Your task to perform on an android device: Add "logitech g pro" to the cart on costco.com Image 0: 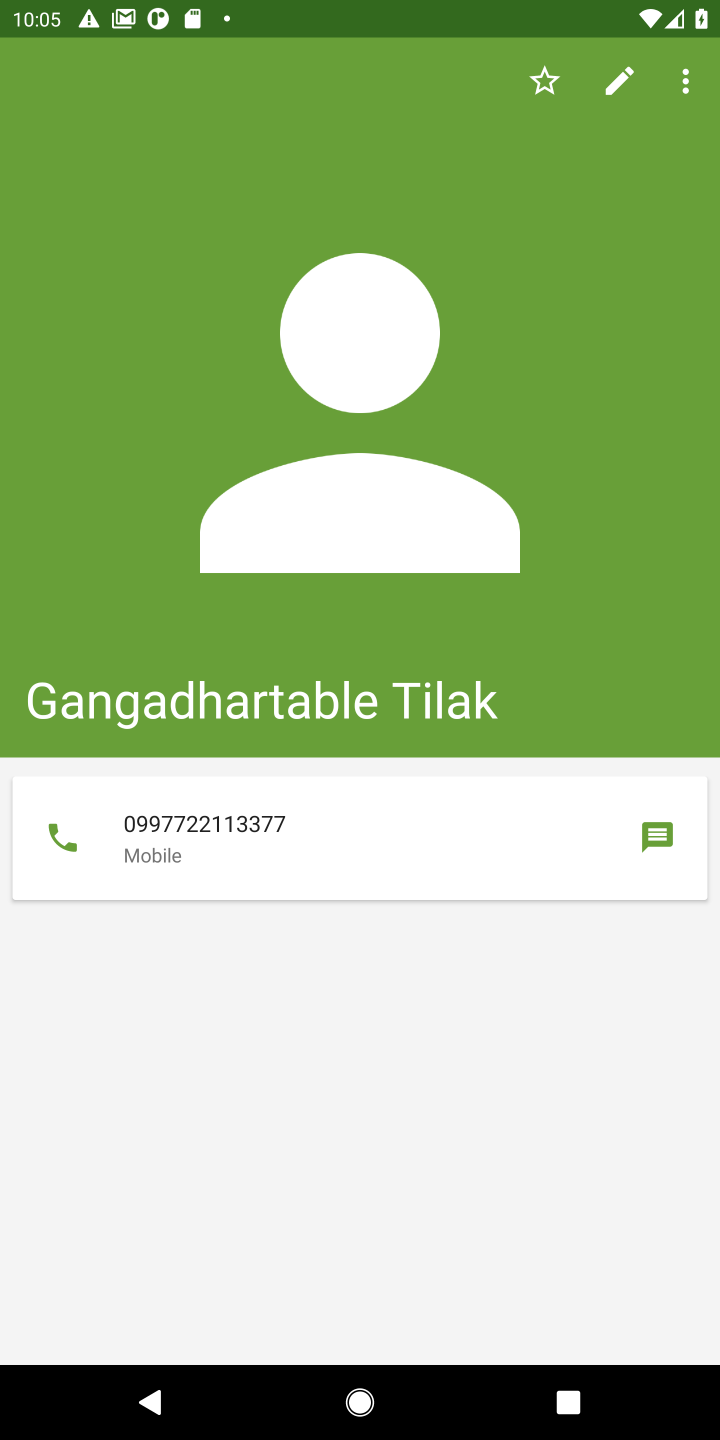
Step 0: press home button
Your task to perform on an android device: Add "logitech g pro" to the cart on costco.com Image 1: 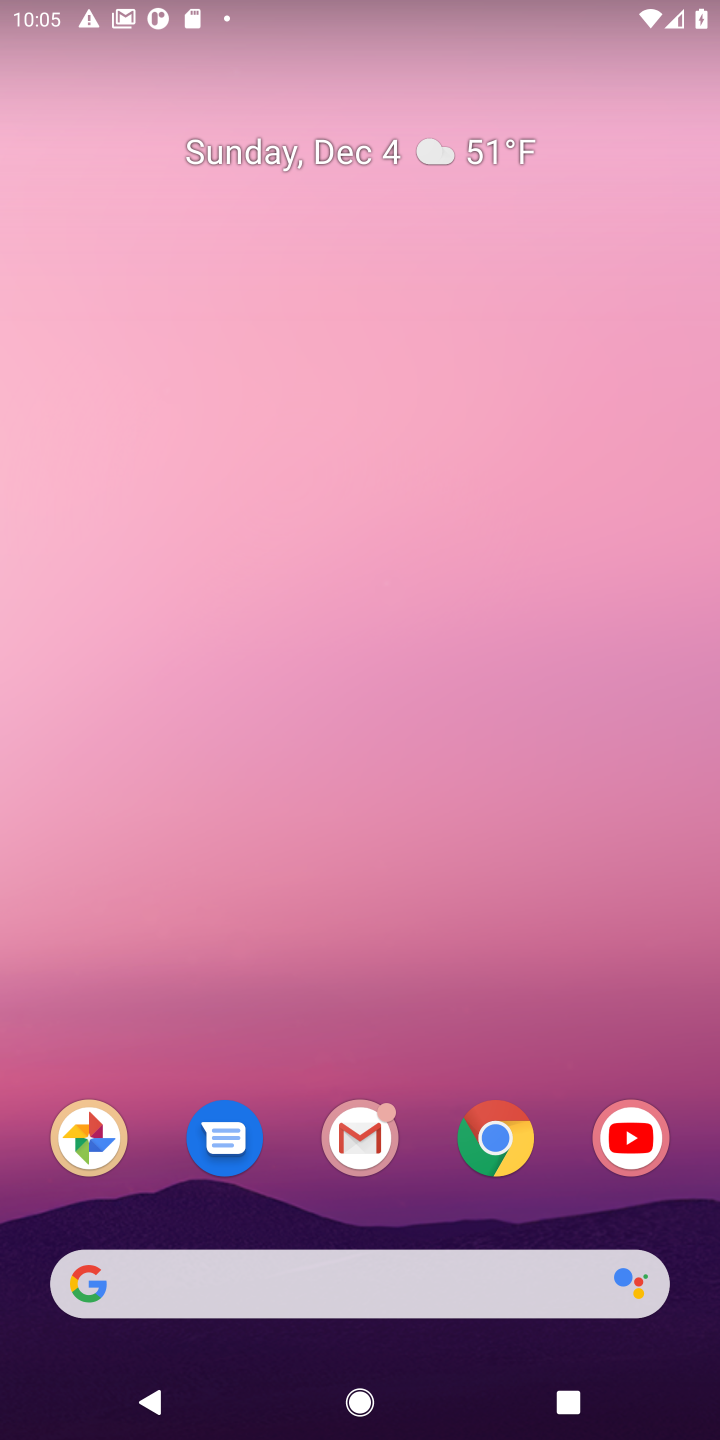
Step 1: click (495, 1141)
Your task to perform on an android device: Add "logitech g pro" to the cart on costco.com Image 2: 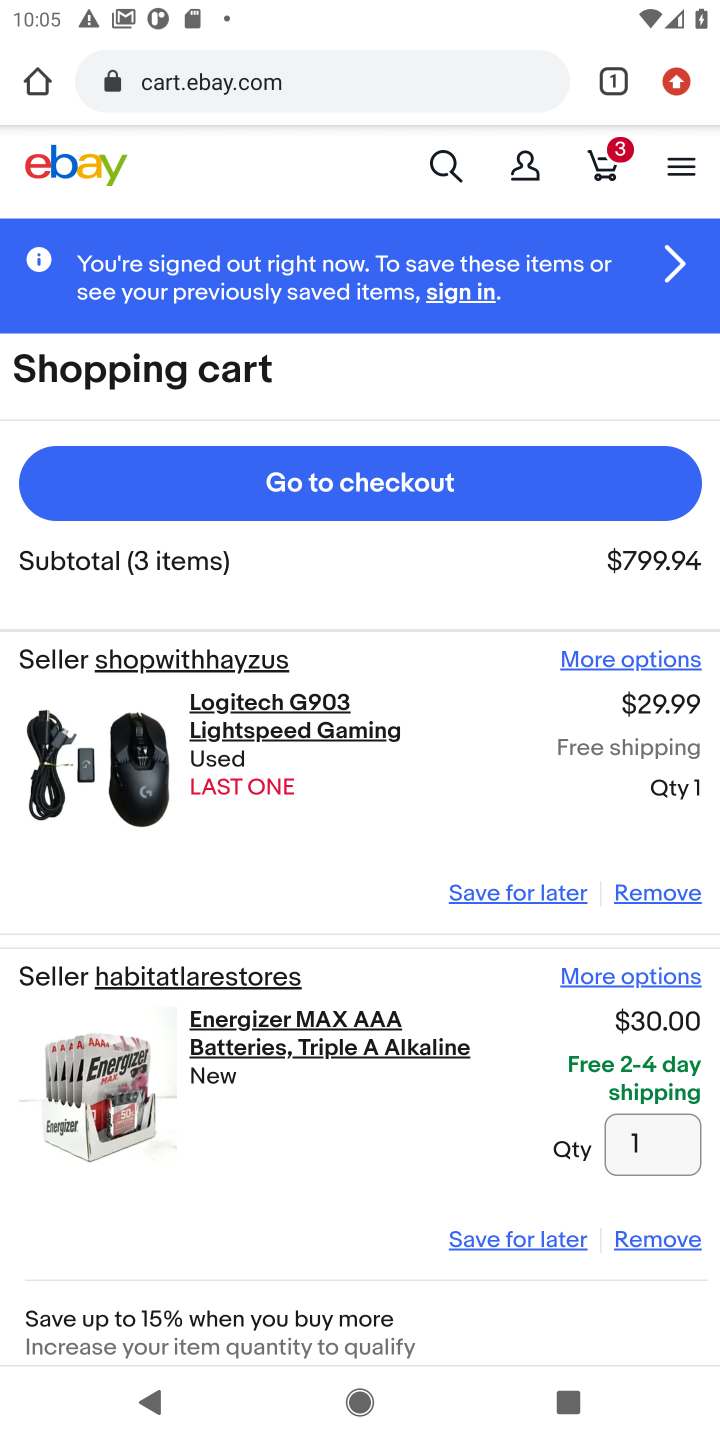
Step 2: click (355, 77)
Your task to perform on an android device: Add "logitech g pro" to the cart on costco.com Image 3: 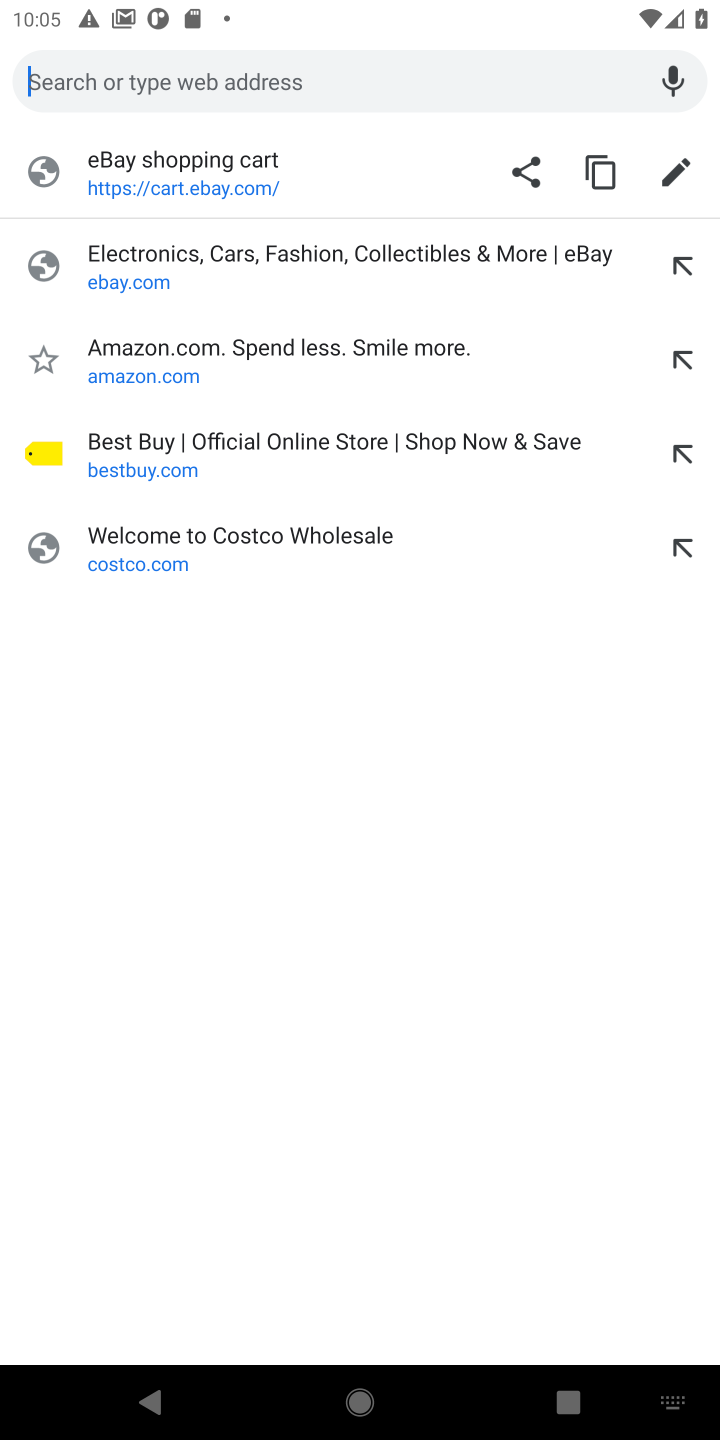
Step 3: click (197, 537)
Your task to perform on an android device: Add "logitech g pro" to the cart on costco.com Image 4: 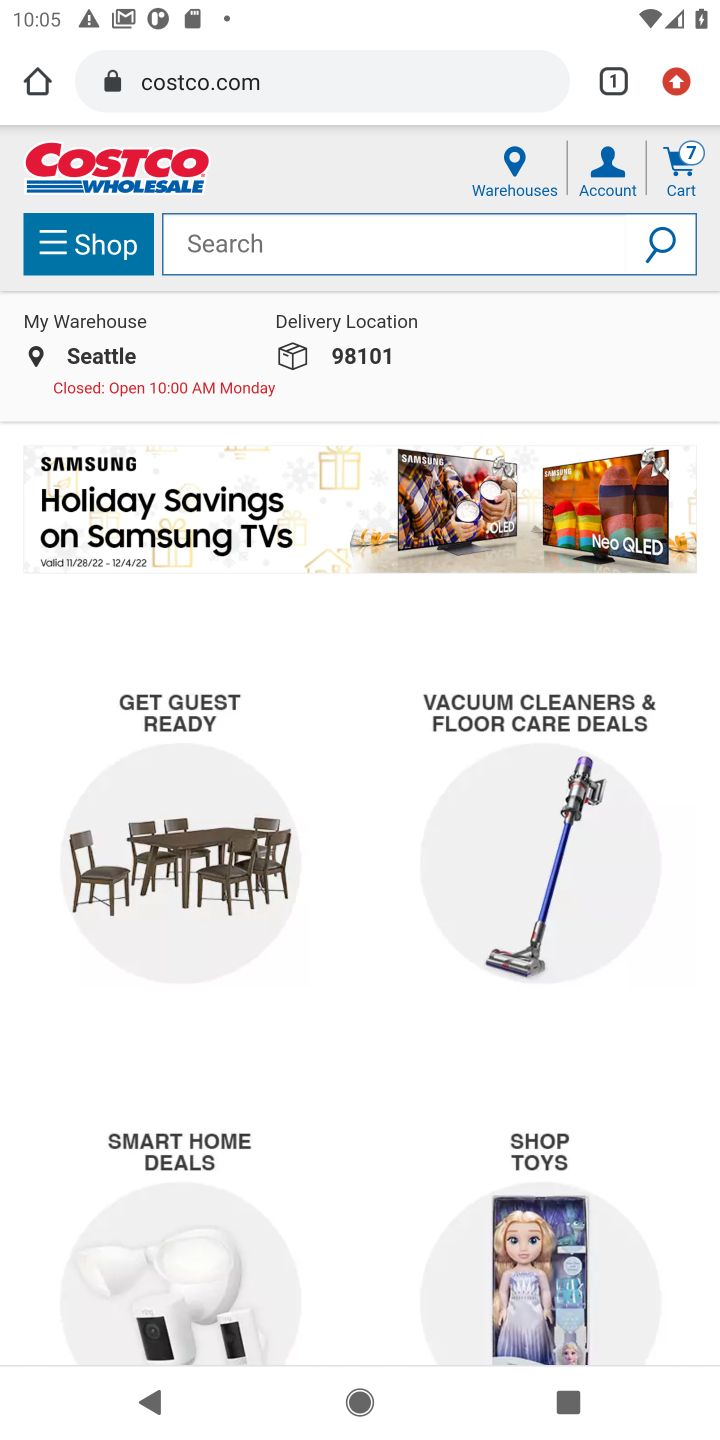
Step 4: click (378, 248)
Your task to perform on an android device: Add "logitech g pro" to the cart on costco.com Image 5: 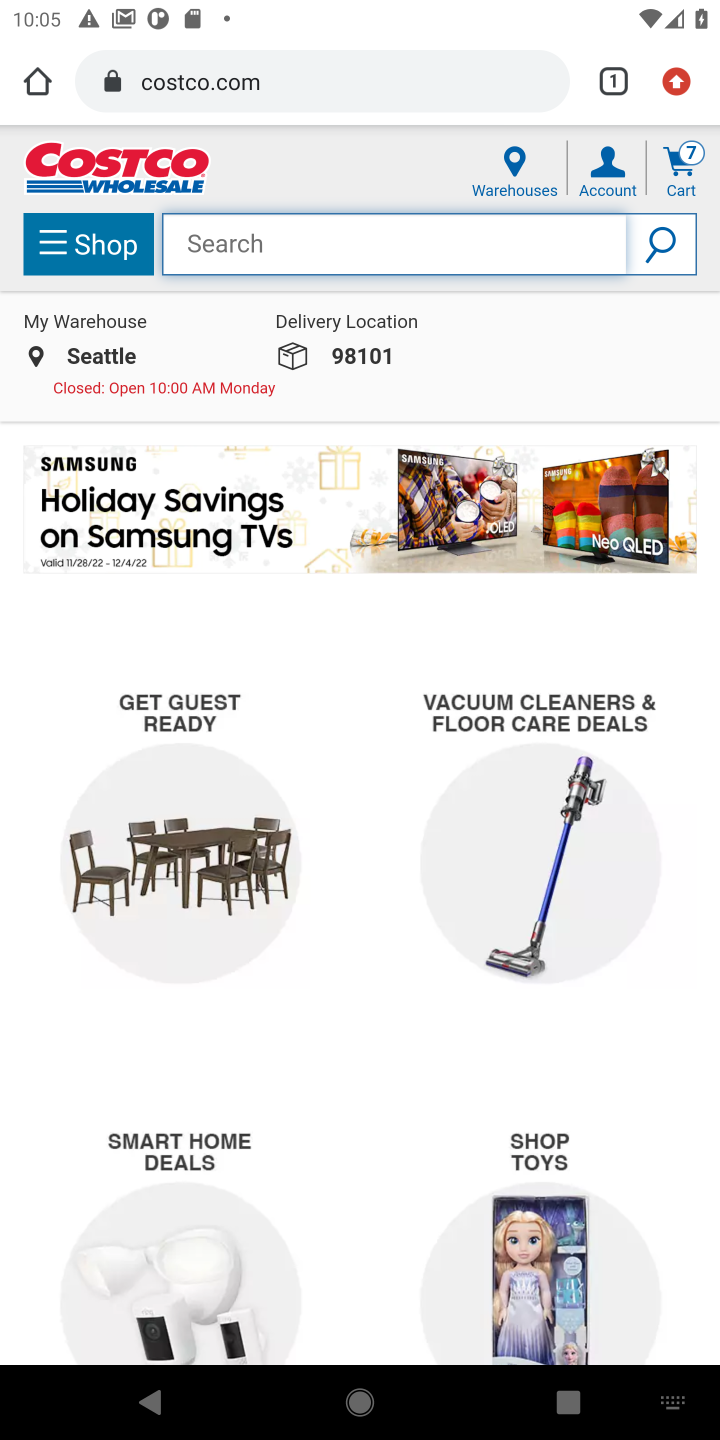
Step 5: press enter
Your task to perform on an android device: Add "logitech g pro" to the cart on costco.com Image 6: 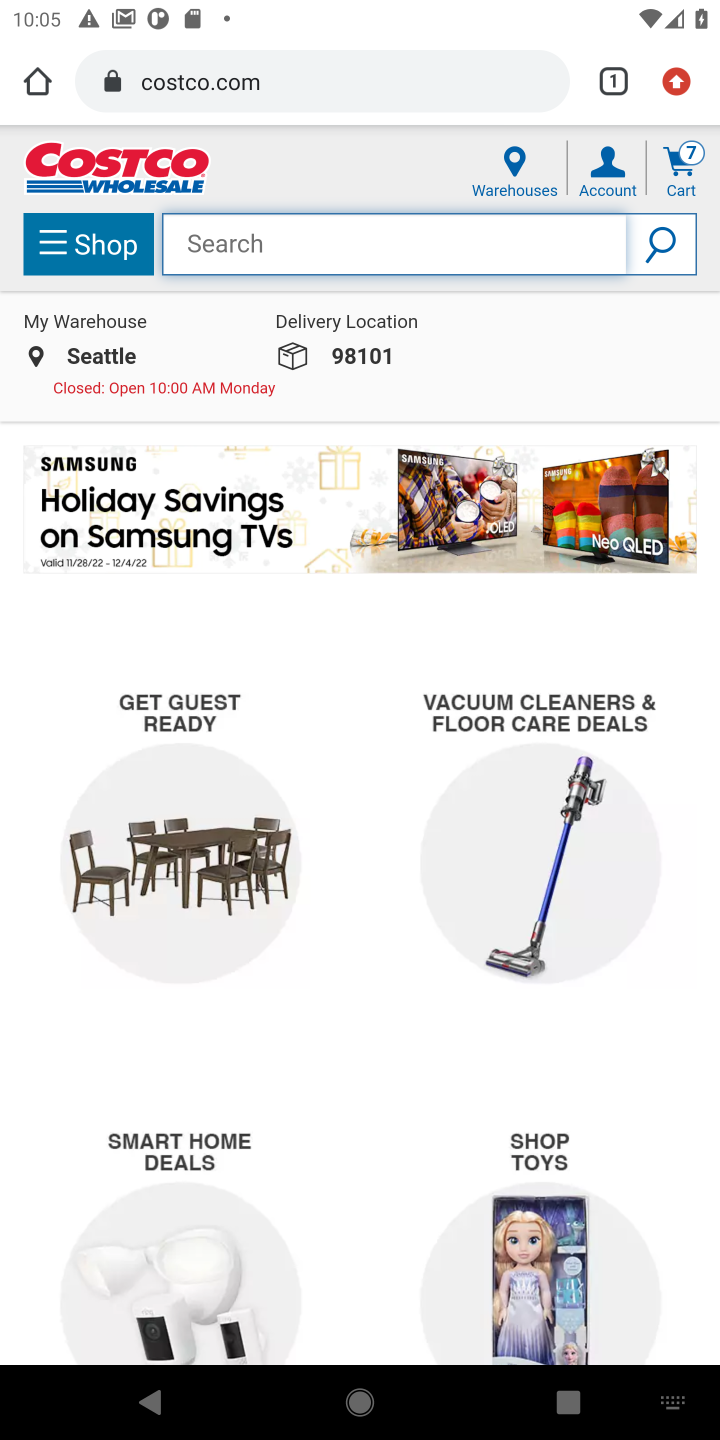
Step 6: type "logitech g pro"
Your task to perform on an android device: Add "logitech g pro" to the cart on costco.com Image 7: 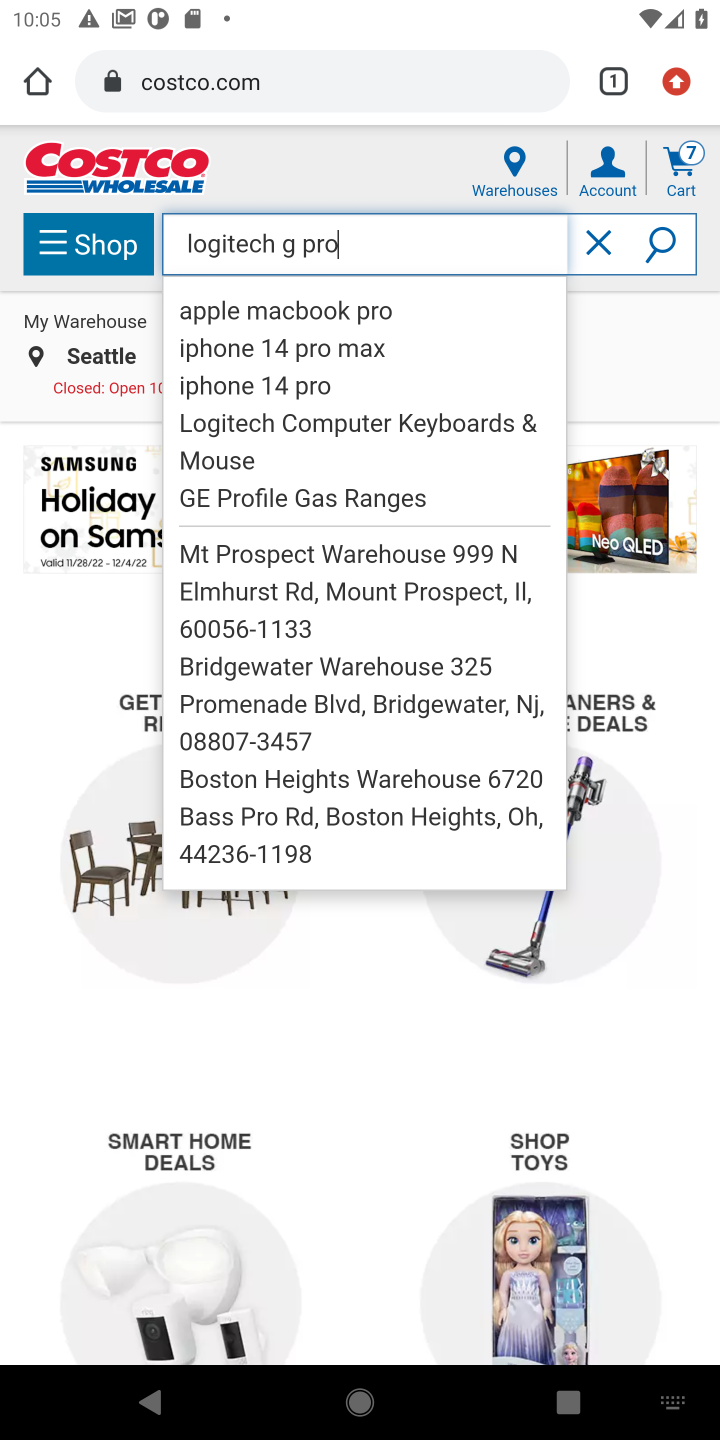
Step 7: press enter
Your task to perform on an android device: Add "logitech g pro" to the cart on costco.com Image 8: 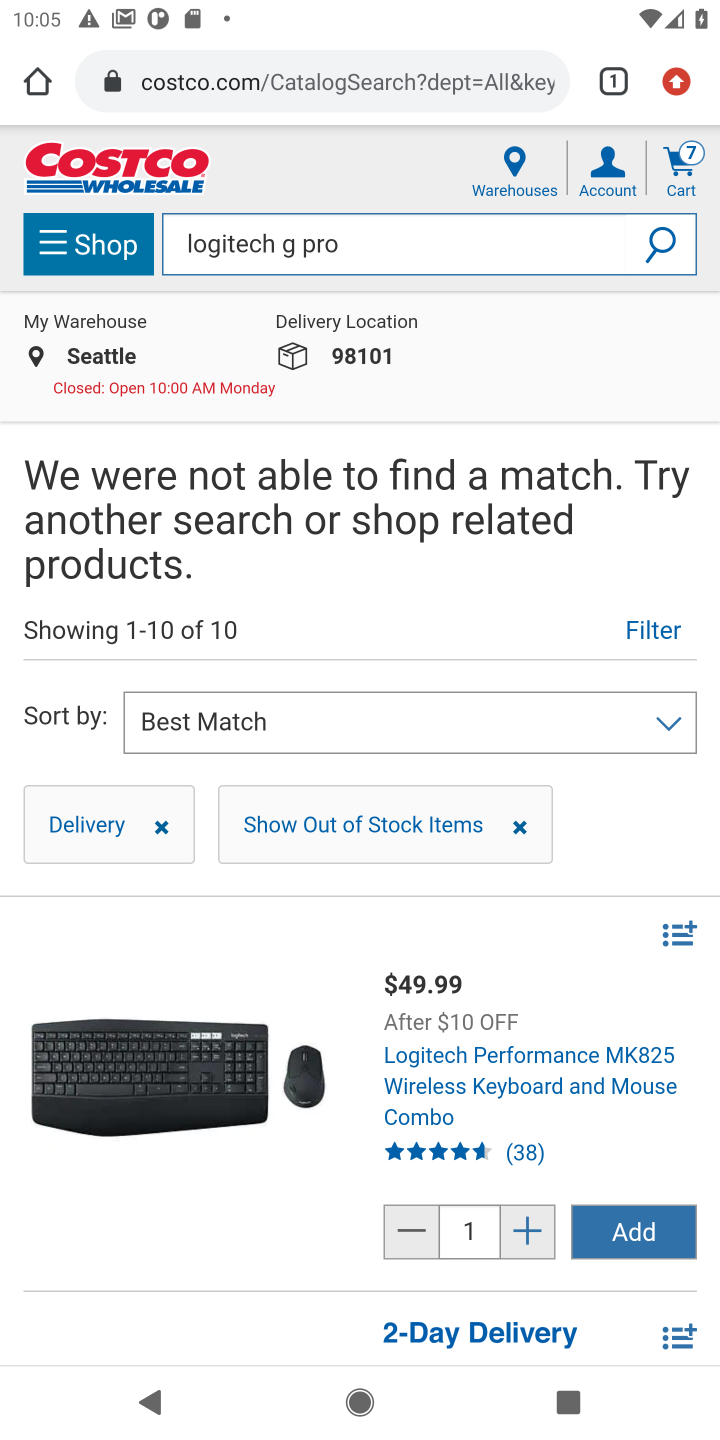
Step 8: task complete